Your task to perform on an android device: turn off data saver in the chrome app Image 0: 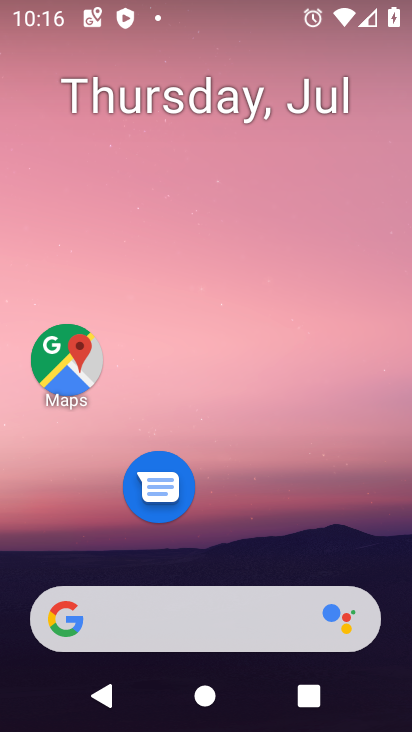
Step 0: drag from (198, 563) to (197, 232)
Your task to perform on an android device: turn off data saver in the chrome app Image 1: 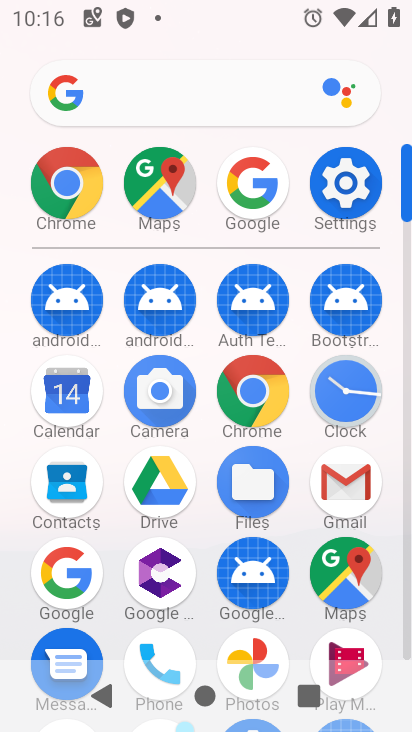
Step 1: click (263, 416)
Your task to perform on an android device: turn off data saver in the chrome app Image 2: 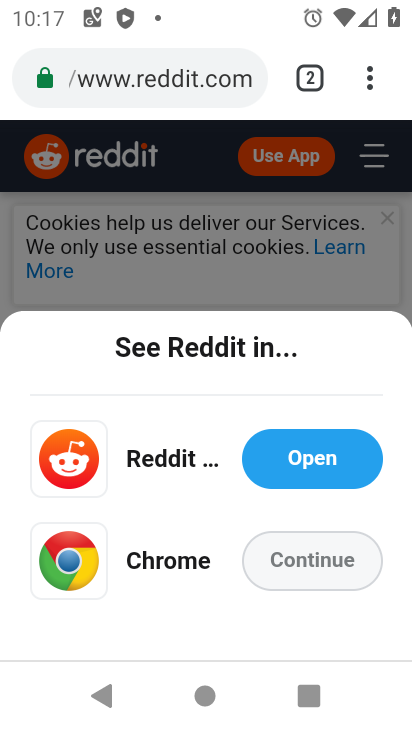
Step 2: click (367, 87)
Your task to perform on an android device: turn off data saver in the chrome app Image 3: 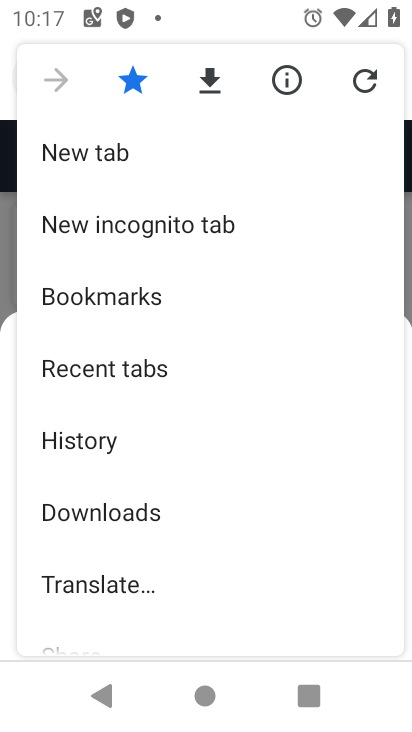
Step 3: drag from (167, 533) to (224, 137)
Your task to perform on an android device: turn off data saver in the chrome app Image 4: 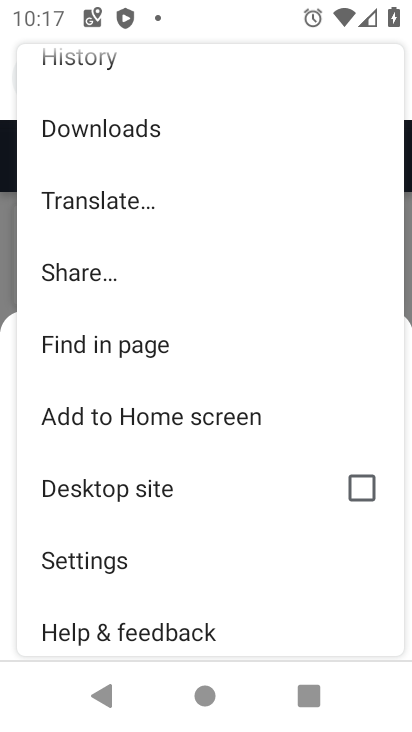
Step 4: click (128, 562)
Your task to perform on an android device: turn off data saver in the chrome app Image 5: 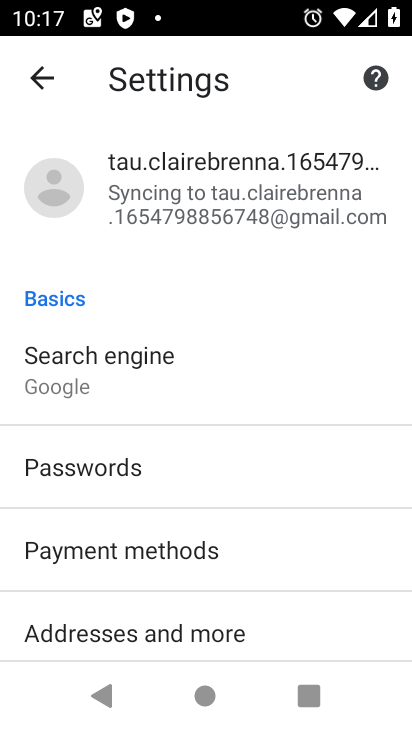
Step 5: drag from (201, 568) to (254, 111)
Your task to perform on an android device: turn off data saver in the chrome app Image 6: 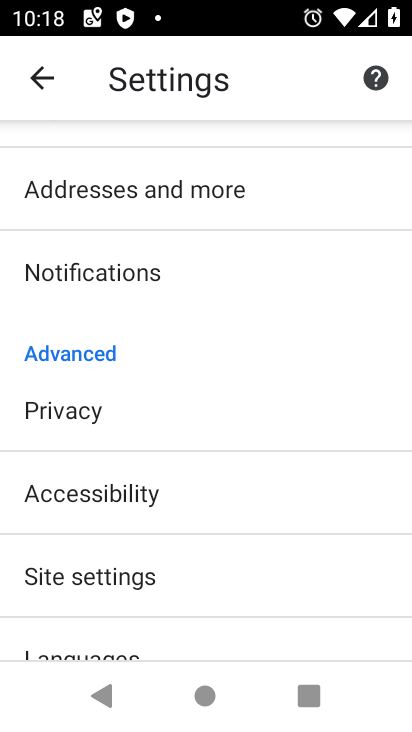
Step 6: drag from (126, 519) to (182, 276)
Your task to perform on an android device: turn off data saver in the chrome app Image 7: 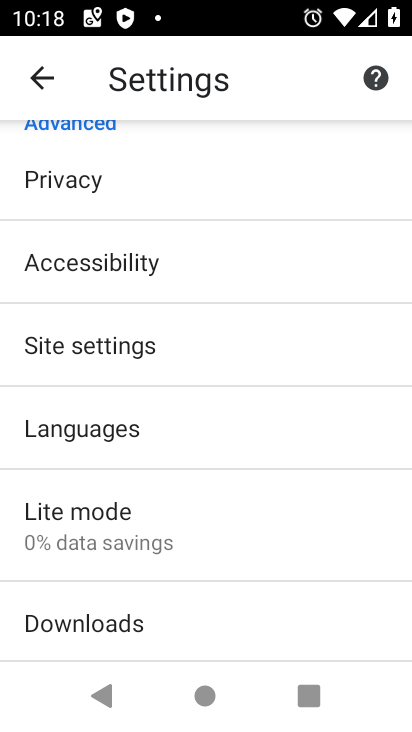
Step 7: click (128, 526)
Your task to perform on an android device: turn off data saver in the chrome app Image 8: 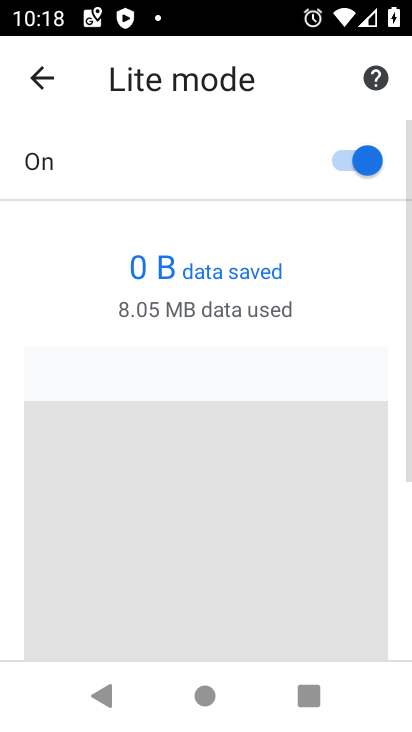
Step 8: click (344, 165)
Your task to perform on an android device: turn off data saver in the chrome app Image 9: 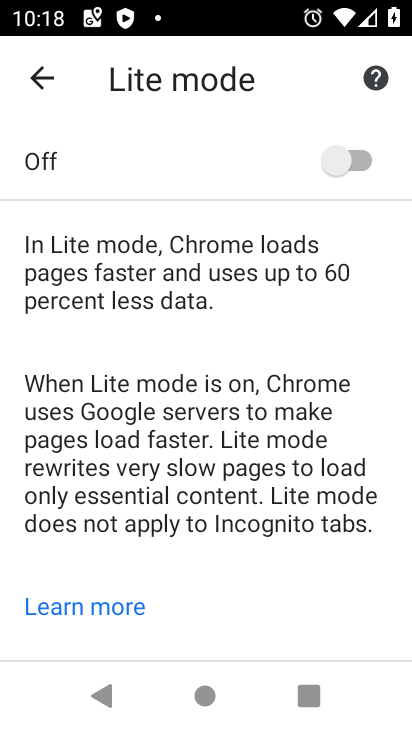
Step 9: task complete